Your task to perform on an android device: open a new tab in the chrome app Image 0: 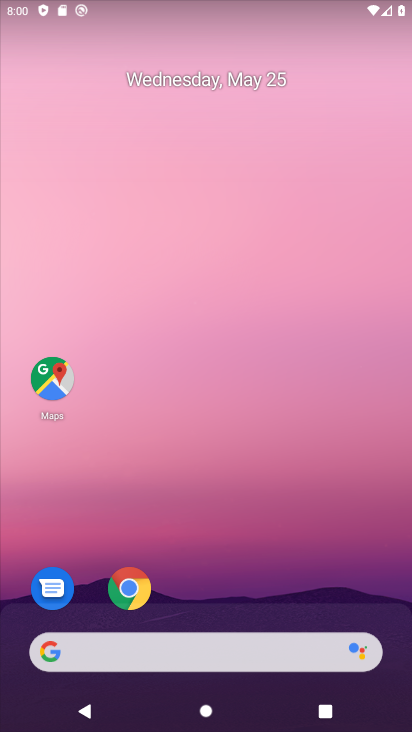
Step 0: click (133, 582)
Your task to perform on an android device: open a new tab in the chrome app Image 1: 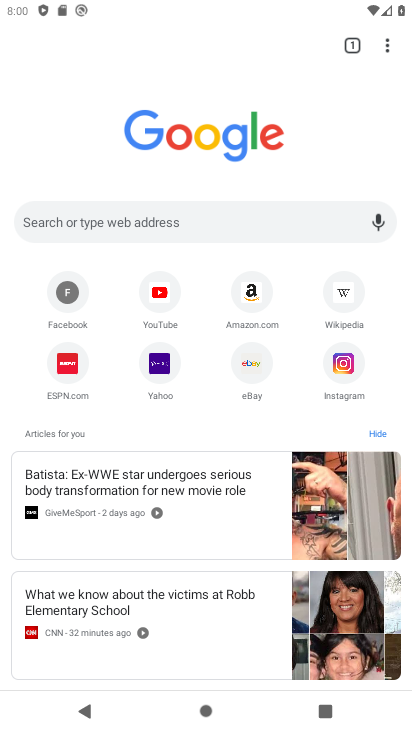
Step 1: click (347, 49)
Your task to perform on an android device: open a new tab in the chrome app Image 2: 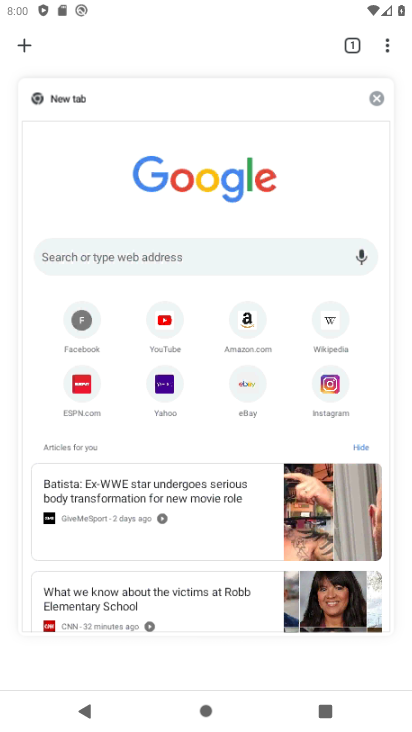
Step 2: click (30, 44)
Your task to perform on an android device: open a new tab in the chrome app Image 3: 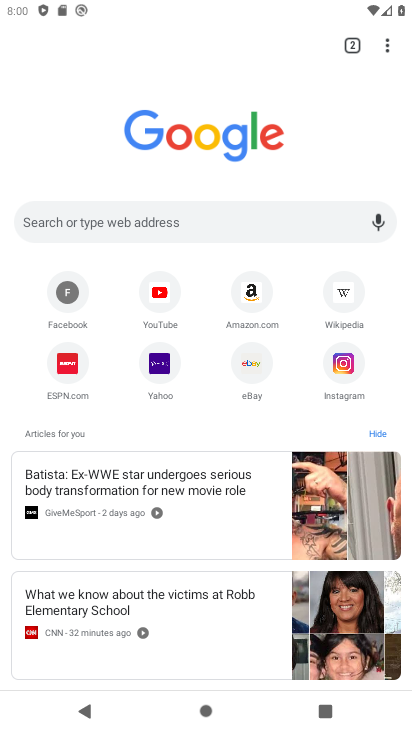
Step 3: task complete